Your task to perform on an android device: open wifi settings Image 0: 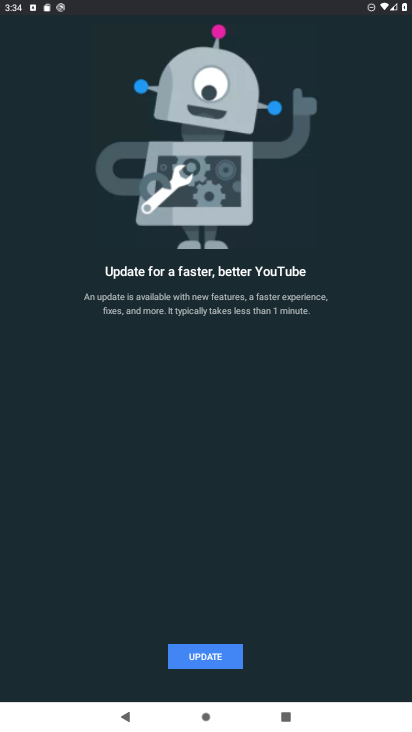
Step 0: drag from (263, 13) to (230, 460)
Your task to perform on an android device: open wifi settings Image 1: 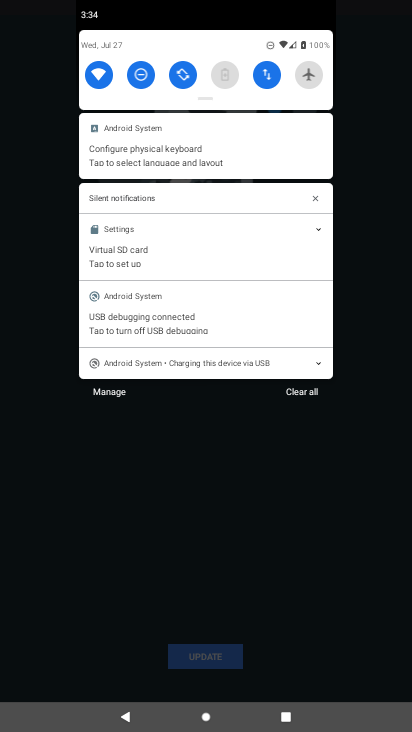
Step 1: click (106, 79)
Your task to perform on an android device: open wifi settings Image 2: 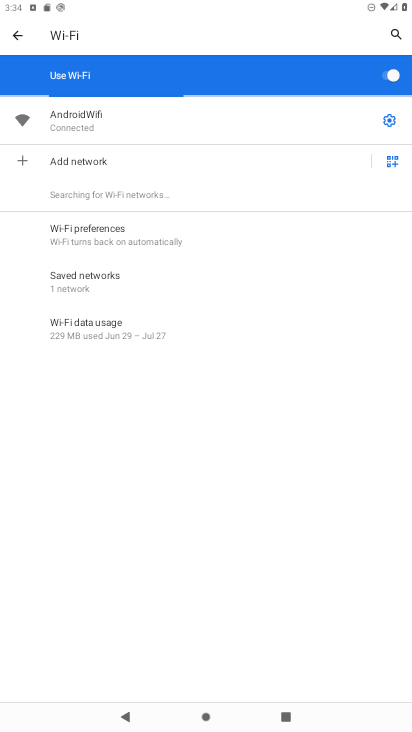
Step 2: task complete